Your task to perform on an android device: When is my next meeting? Image 0: 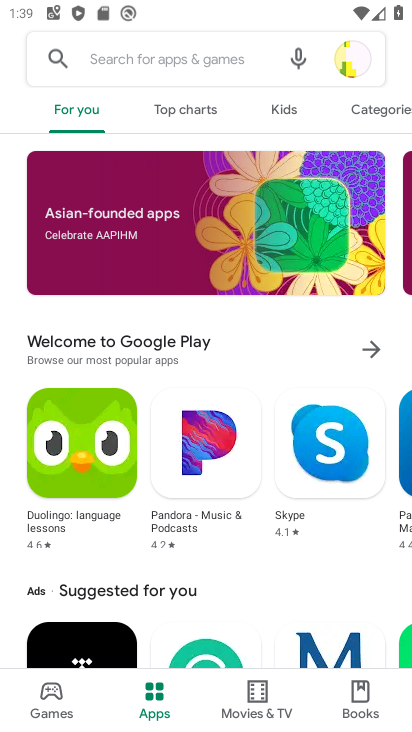
Step 0: press home button
Your task to perform on an android device: When is my next meeting? Image 1: 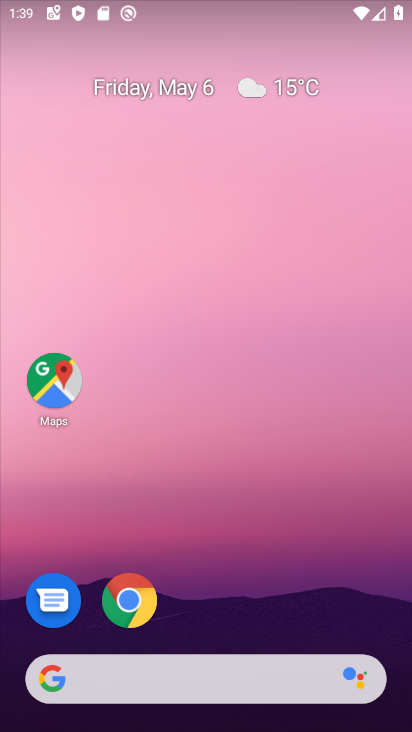
Step 1: drag from (318, 612) to (319, 55)
Your task to perform on an android device: When is my next meeting? Image 2: 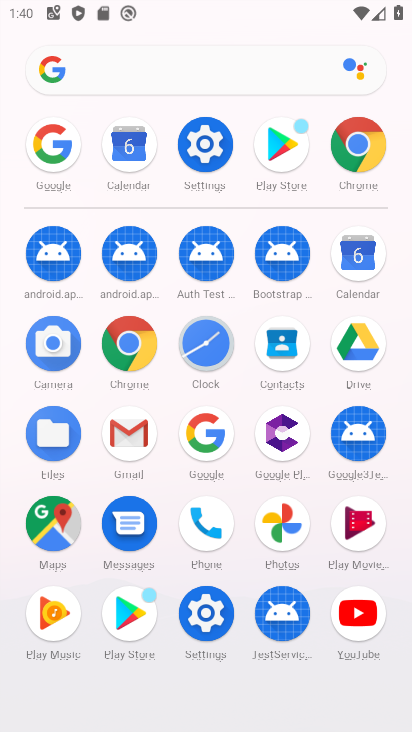
Step 2: click (358, 258)
Your task to perform on an android device: When is my next meeting? Image 3: 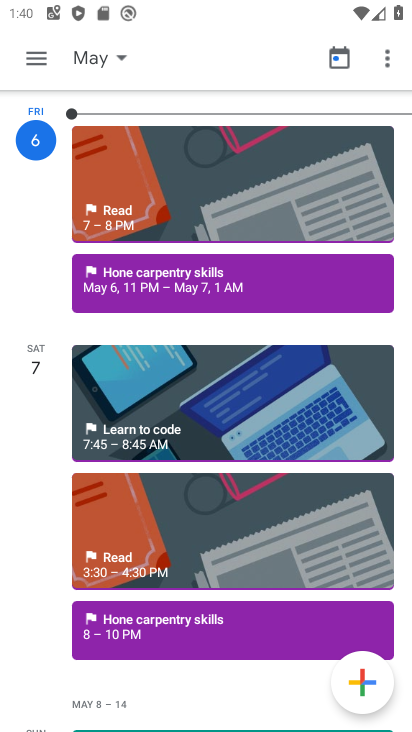
Step 3: click (29, 66)
Your task to perform on an android device: When is my next meeting? Image 4: 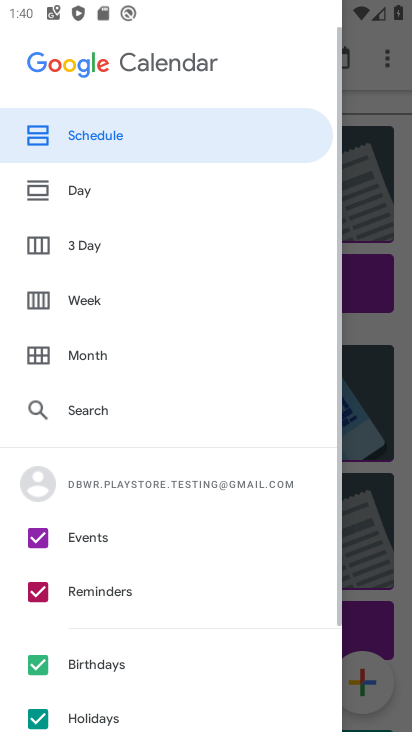
Step 4: click (180, 131)
Your task to perform on an android device: When is my next meeting? Image 5: 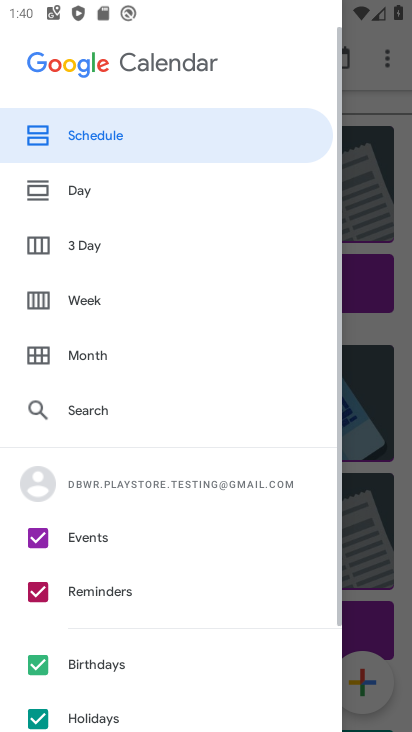
Step 5: click (180, 131)
Your task to perform on an android device: When is my next meeting? Image 6: 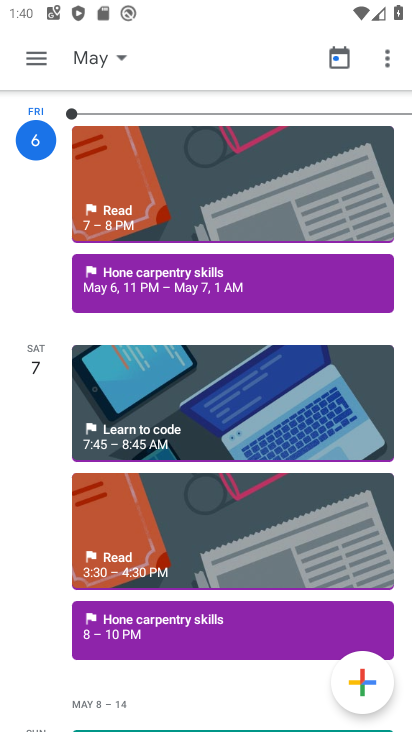
Step 6: task complete